Your task to perform on an android device: Is it going to rain tomorrow? Image 0: 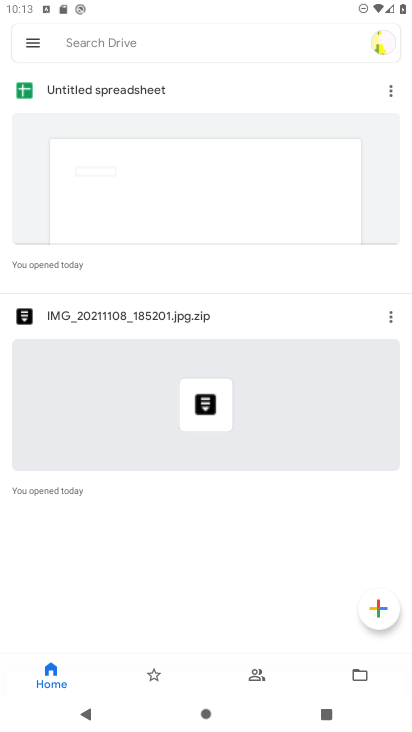
Step 0: press home button
Your task to perform on an android device: Is it going to rain tomorrow? Image 1: 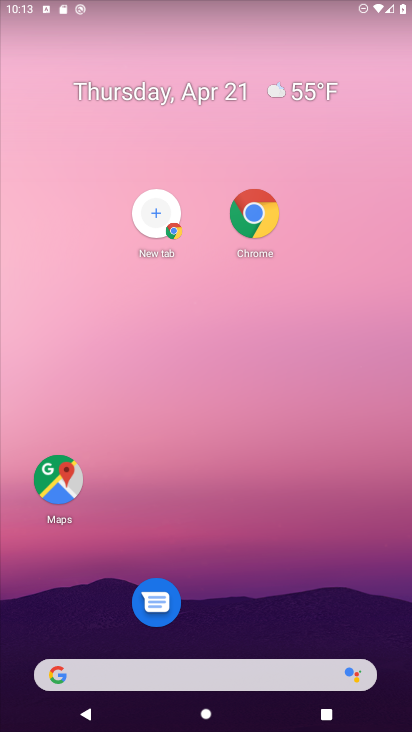
Step 1: click (330, 83)
Your task to perform on an android device: Is it going to rain tomorrow? Image 2: 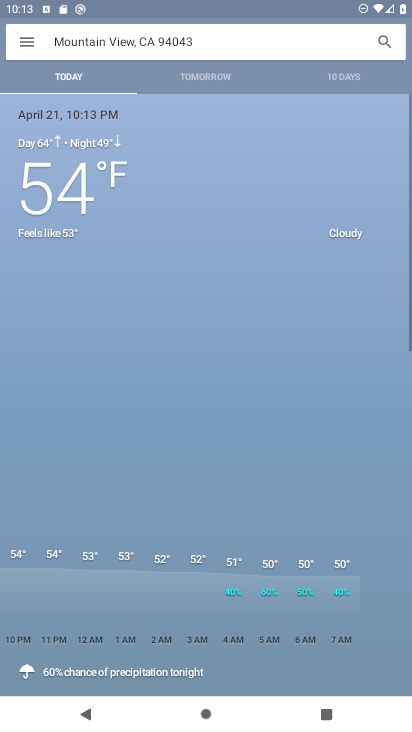
Step 2: click (201, 84)
Your task to perform on an android device: Is it going to rain tomorrow? Image 3: 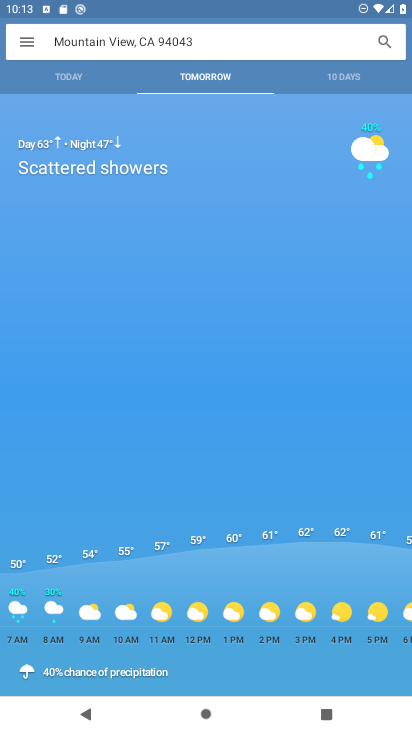
Step 3: task complete